Your task to perform on an android device: Search for the best deal on a 3d printer on aliexpress Image 0: 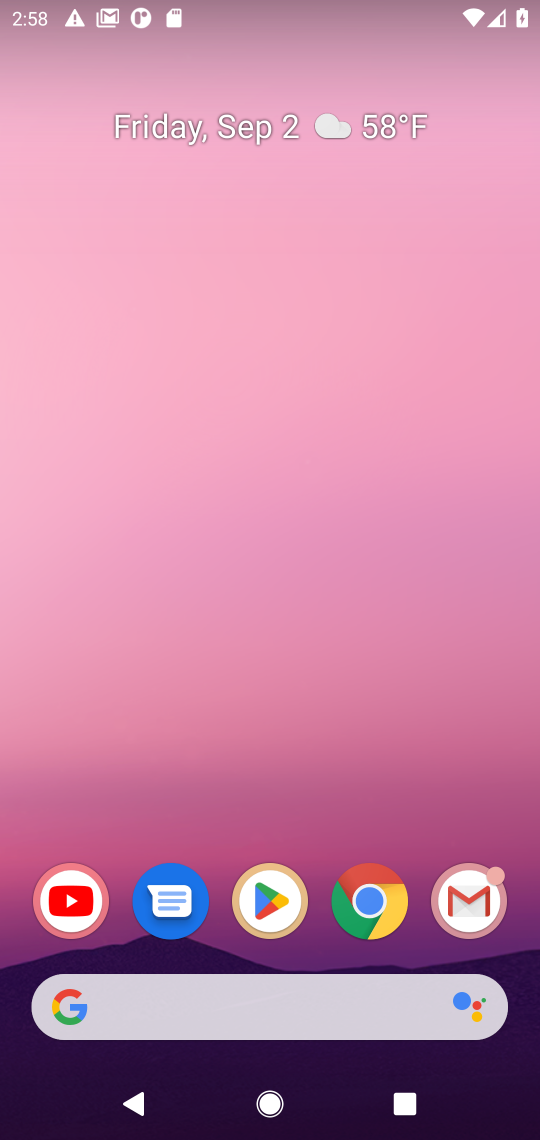
Step 0: press home button
Your task to perform on an android device: Search for the best deal on a 3d printer on aliexpress Image 1: 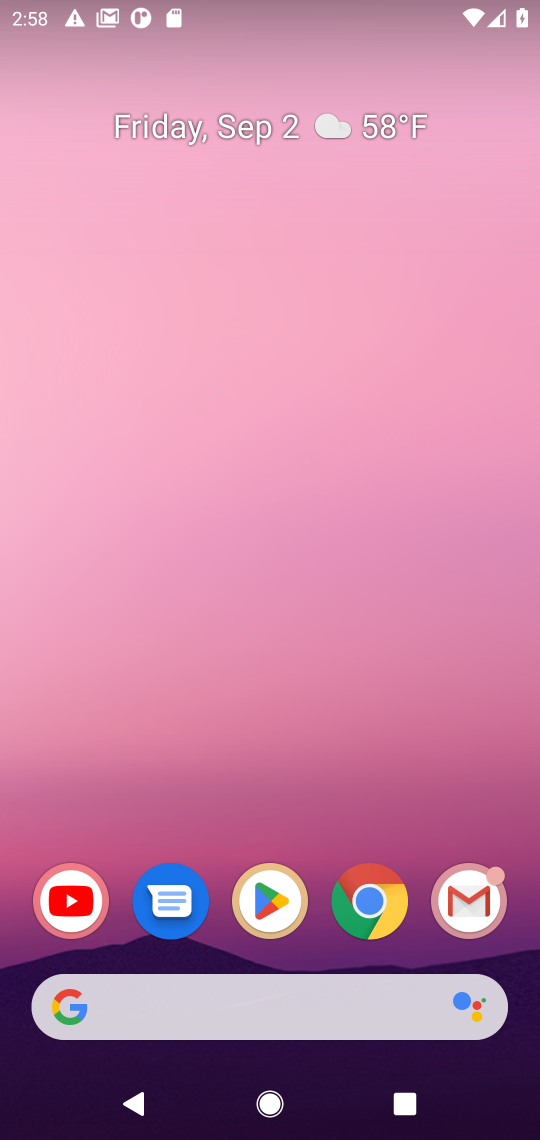
Step 1: drag from (284, 488) to (412, 14)
Your task to perform on an android device: Search for the best deal on a 3d printer on aliexpress Image 2: 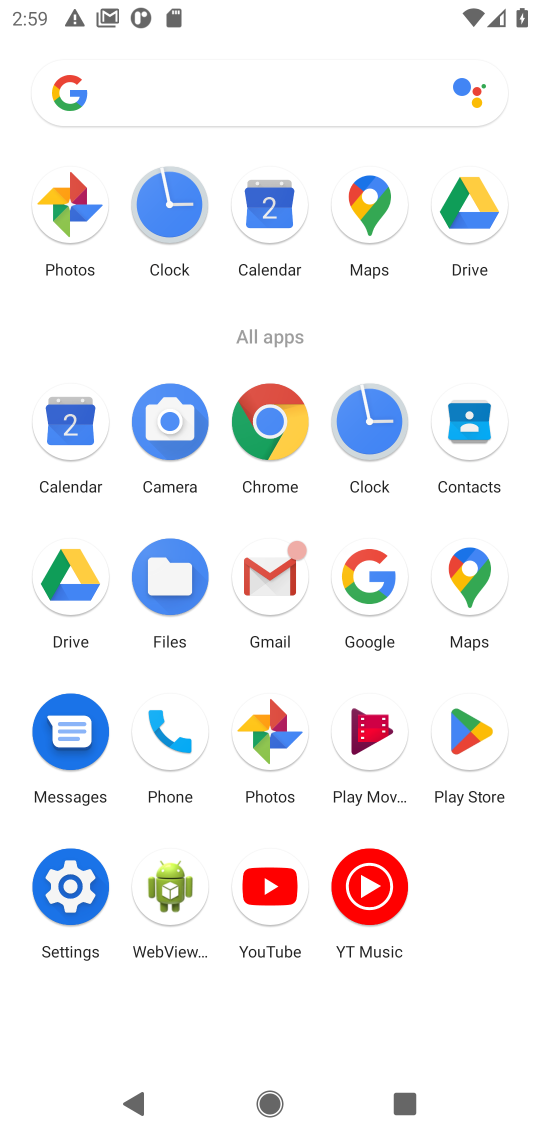
Step 2: click (272, 417)
Your task to perform on an android device: Search for the best deal on a 3d printer on aliexpress Image 3: 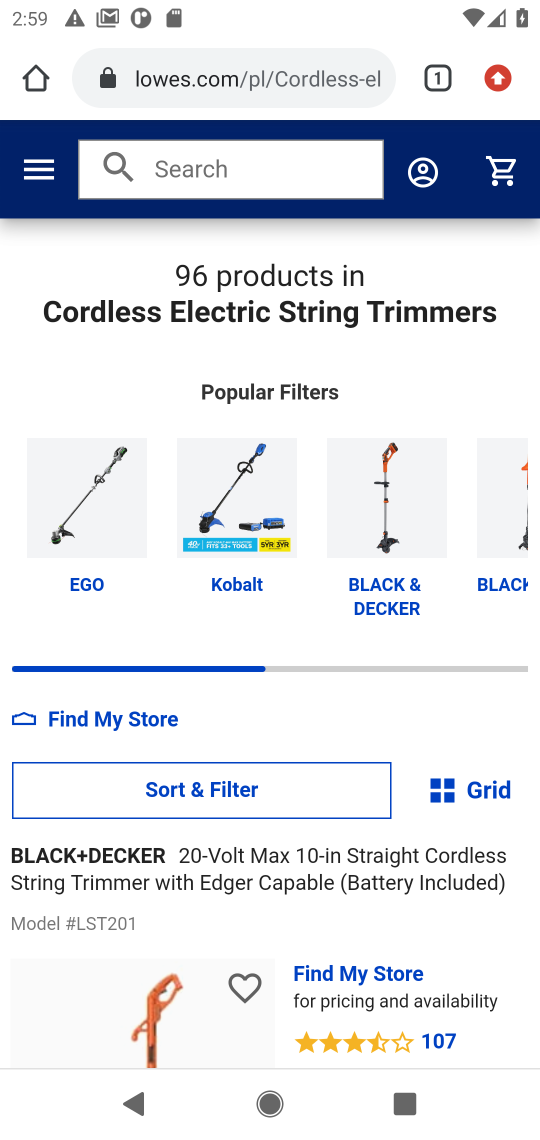
Step 3: click (244, 70)
Your task to perform on an android device: Search for the best deal on a 3d printer on aliexpress Image 4: 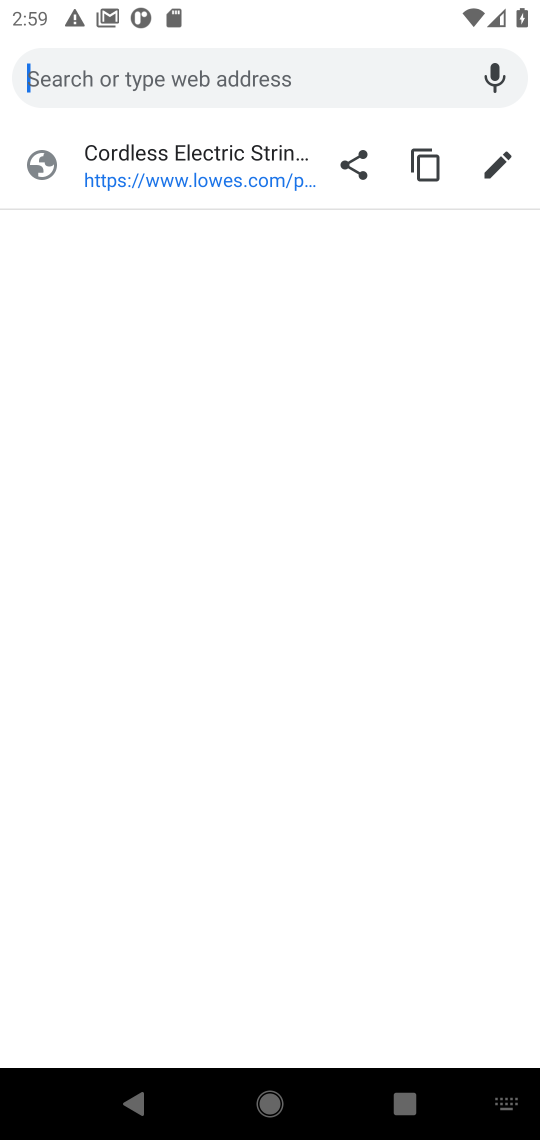
Step 4: type "best deal on a 3d printer on aliexpress"
Your task to perform on an android device: Search for the best deal on a 3d printer on aliexpress Image 5: 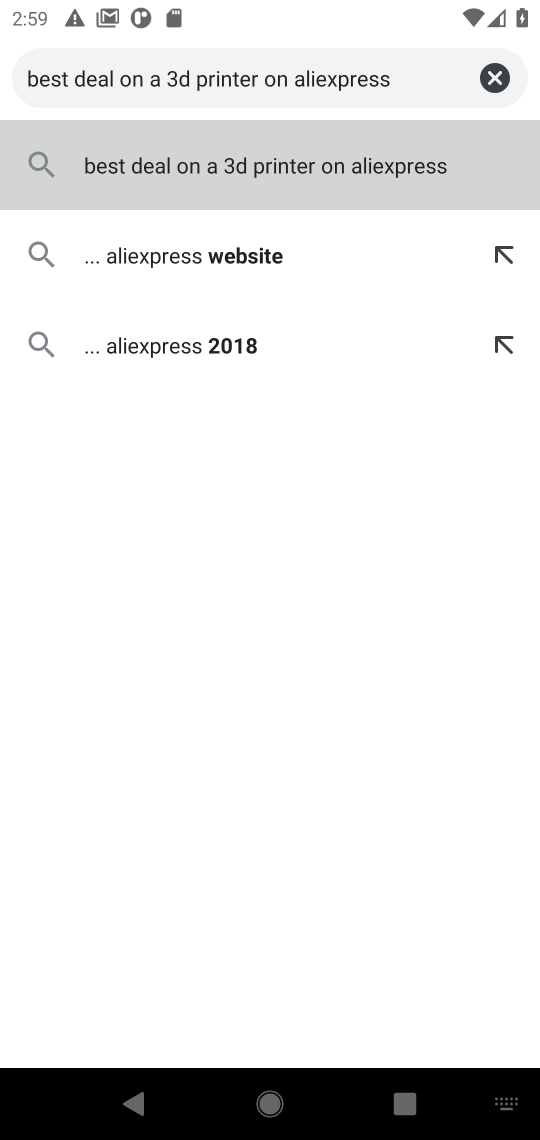
Step 5: click (254, 161)
Your task to perform on an android device: Search for the best deal on a 3d printer on aliexpress Image 6: 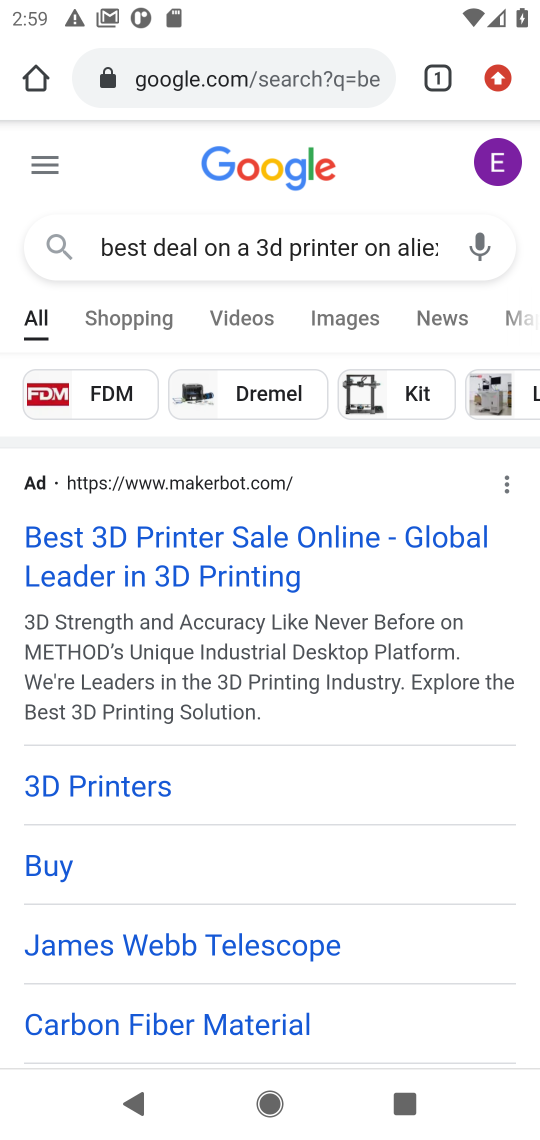
Step 6: drag from (278, 512) to (360, 2)
Your task to perform on an android device: Search for the best deal on a 3d printer on aliexpress Image 7: 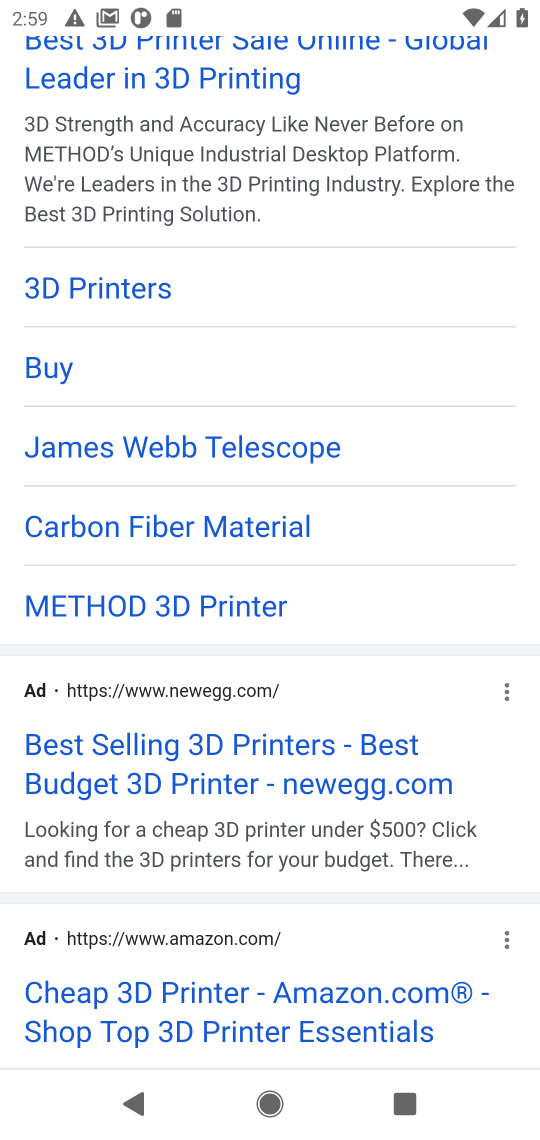
Step 7: drag from (341, 311) to (461, 3)
Your task to perform on an android device: Search for the best deal on a 3d printer on aliexpress Image 8: 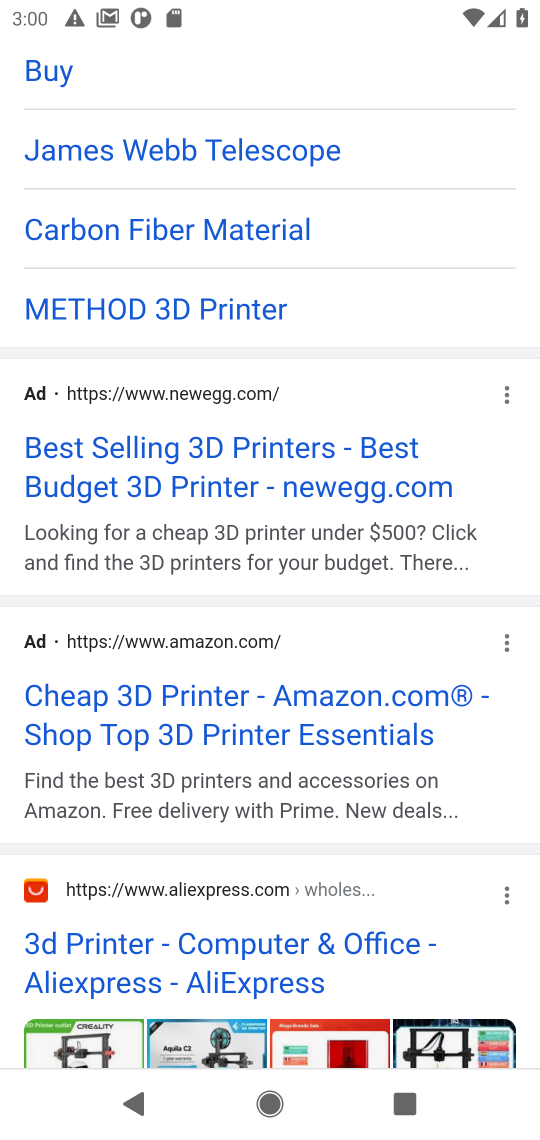
Step 8: click (260, 967)
Your task to perform on an android device: Search for the best deal on a 3d printer on aliexpress Image 9: 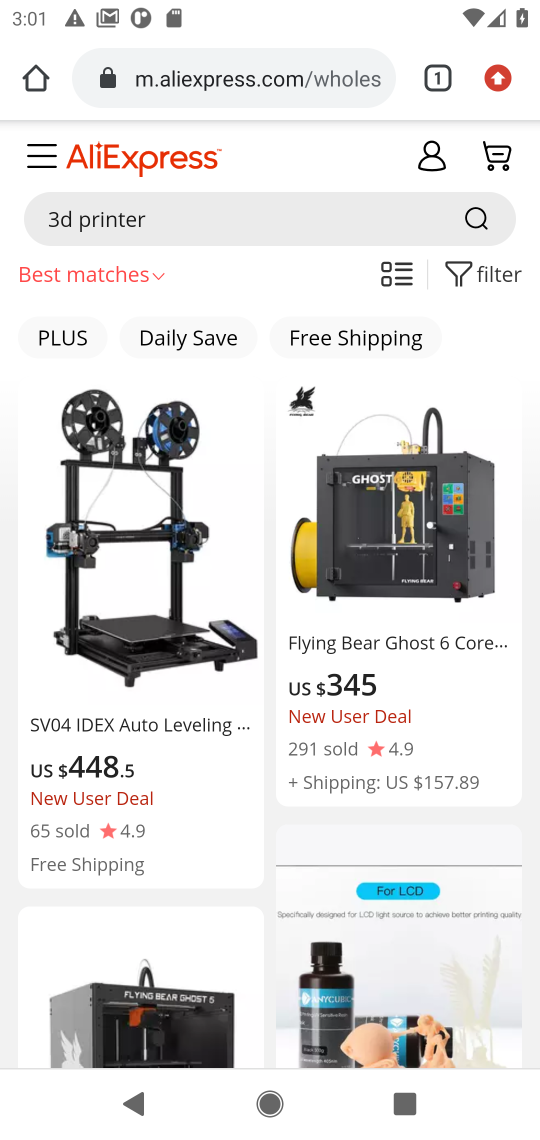
Step 9: task complete